Your task to perform on an android device: show emergency info Image 0: 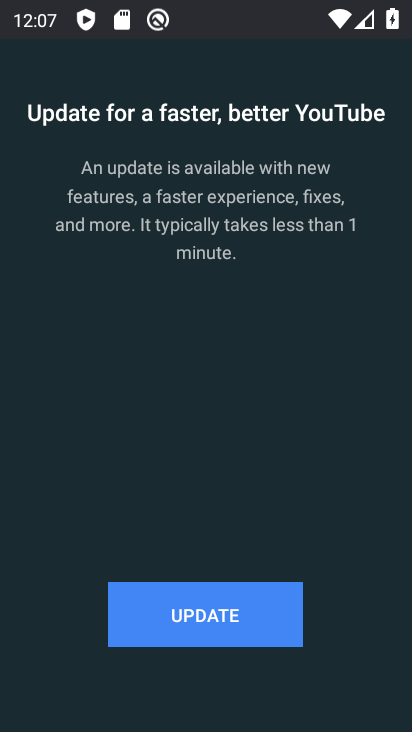
Step 0: press back button
Your task to perform on an android device: show emergency info Image 1: 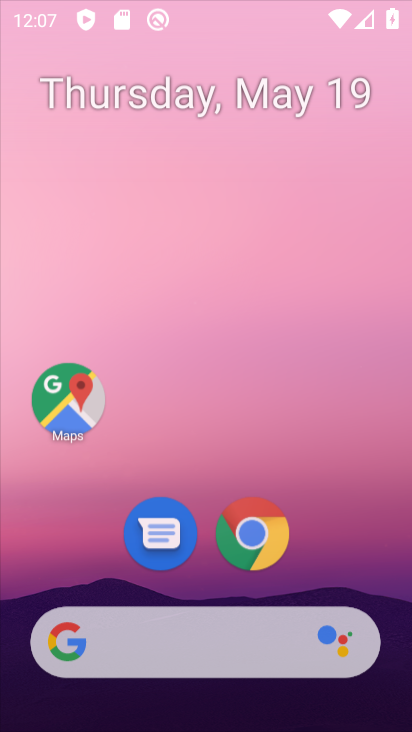
Step 1: press back button
Your task to perform on an android device: show emergency info Image 2: 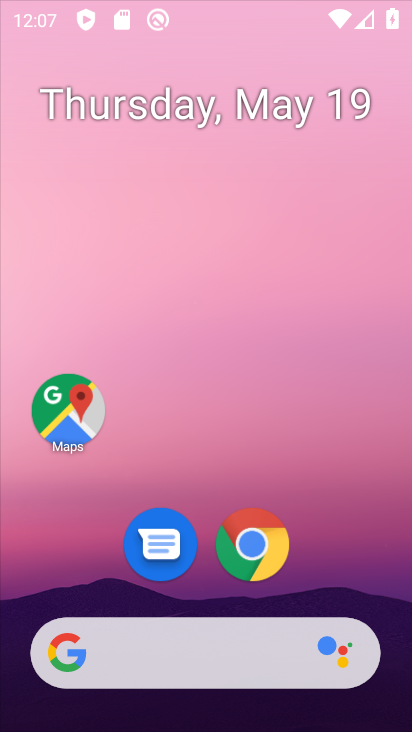
Step 2: press back button
Your task to perform on an android device: show emergency info Image 3: 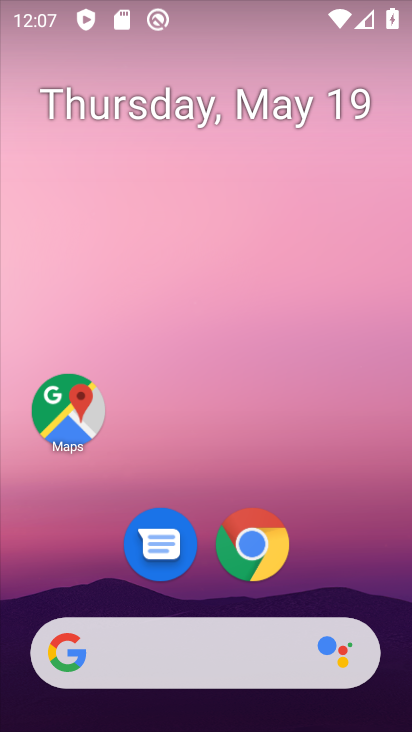
Step 3: drag from (364, 553) to (312, 8)
Your task to perform on an android device: show emergency info Image 4: 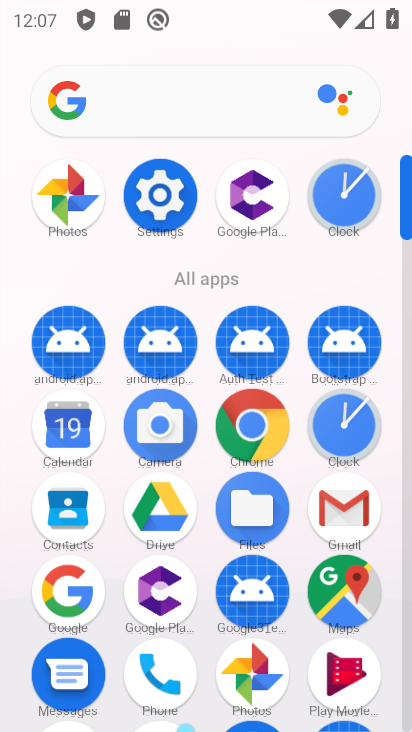
Step 4: click (153, 223)
Your task to perform on an android device: show emergency info Image 5: 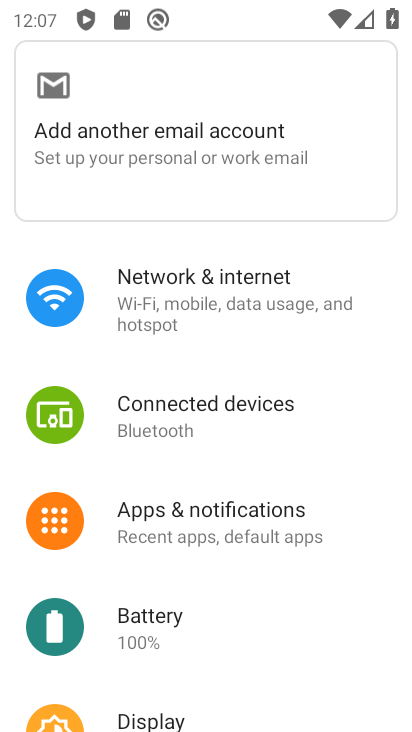
Step 5: drag from (226, 588) to (131, 196)
Your task to perform on an android device: show emergency info Image 6: 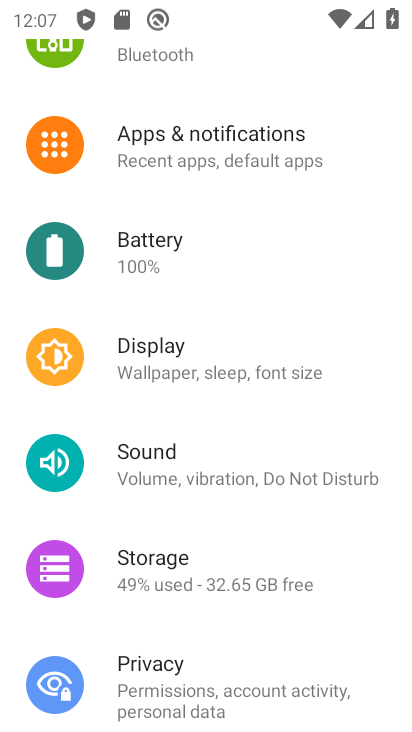
Step 6: drag from (175, 537) to (171, 42)
Your task to perform on an android device: show emergency info Image 7: 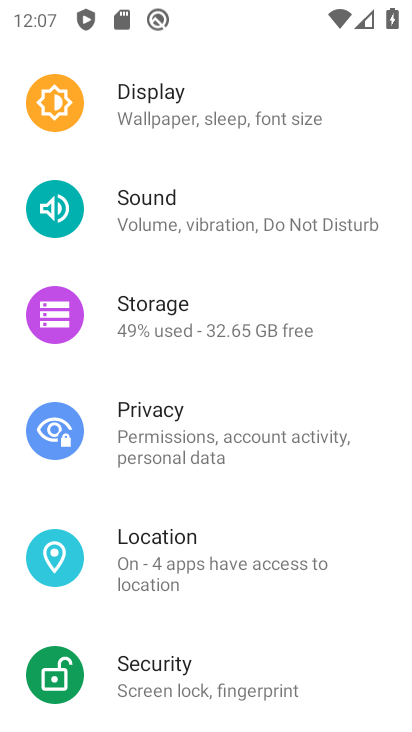
Step 7: drag from (287, 692) to (230, 163)
Your task to perform on an android device: show emergency info Image 8: 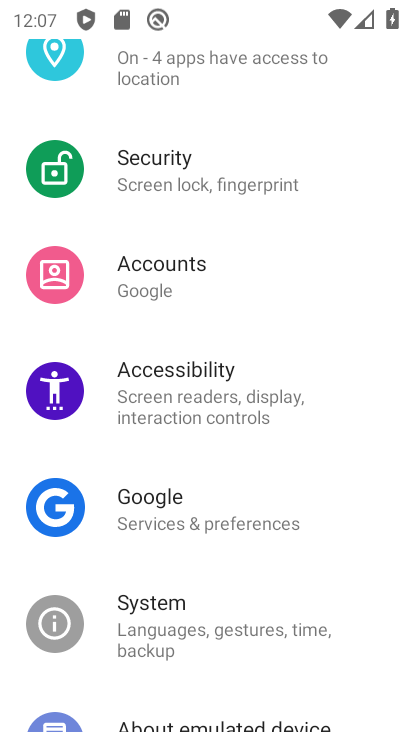
Step 8: click (267, 696)
Your task to perform on an android device: show emergency info Image 9: 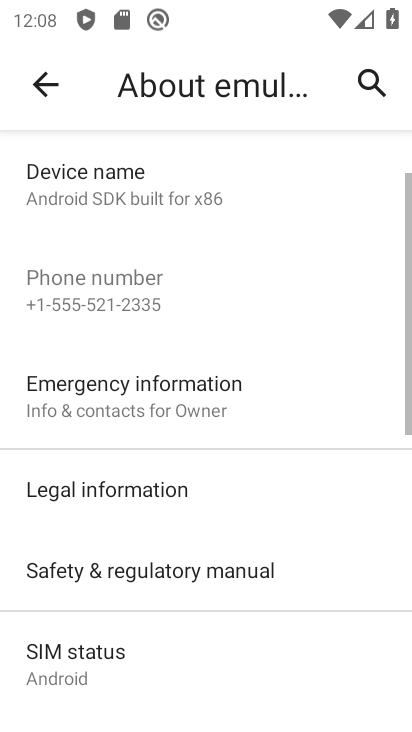
Step 9: click (163, 392)
Your task to perform on an android device: show emergency info Image 10: 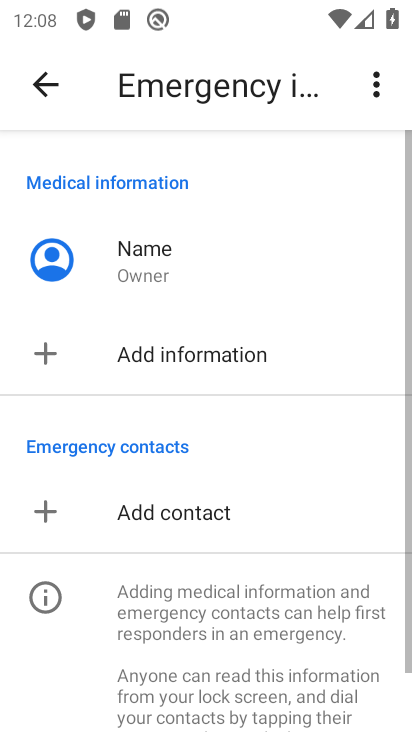
Step 10: task complete